Your task to perform on an android device: open sync settings in chrome Image 0: 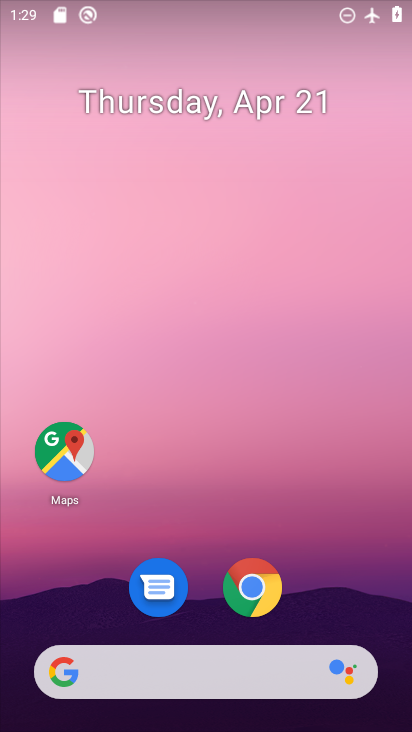
Step 0: click (258, 592)
Your task to perform on an android device: open sync settings in chrome Image 1: 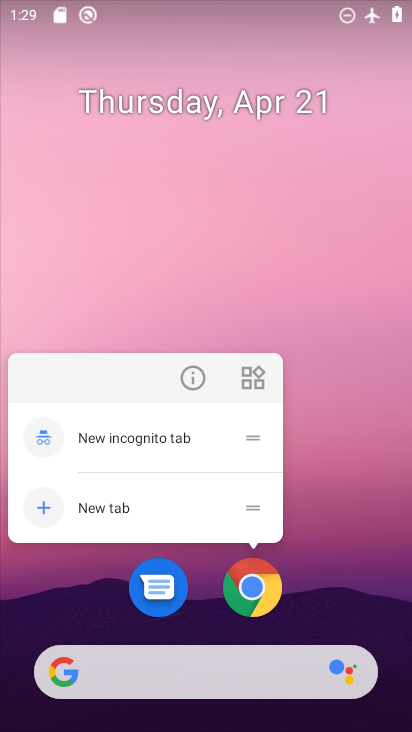
Step 1: click (258, 592)
Your task to perform on an android device: open sync settings in chrome Image 2: 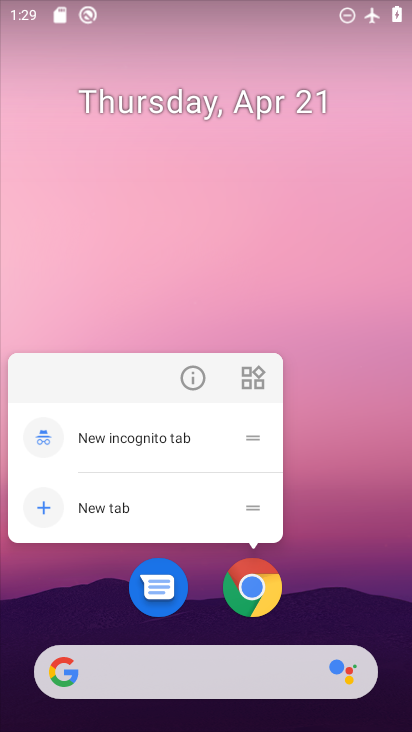
Step 2: click (259, 576)
Your task to perform on an android device: open sync settings in chrome Image 3: 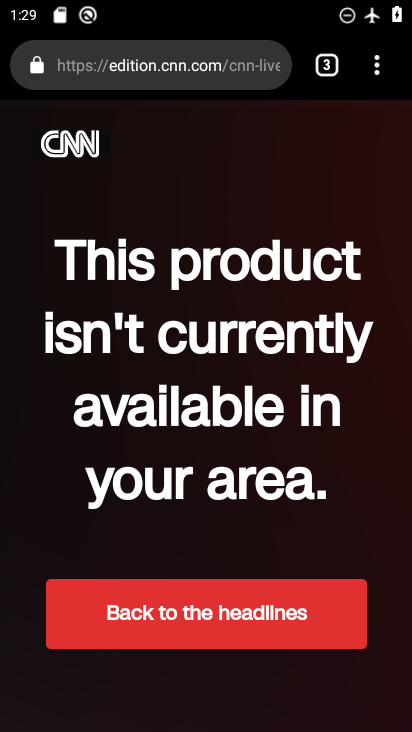
Step 3: click (379, 68)
Your task to perform on an android device: open sync settings in chrome Image 4: 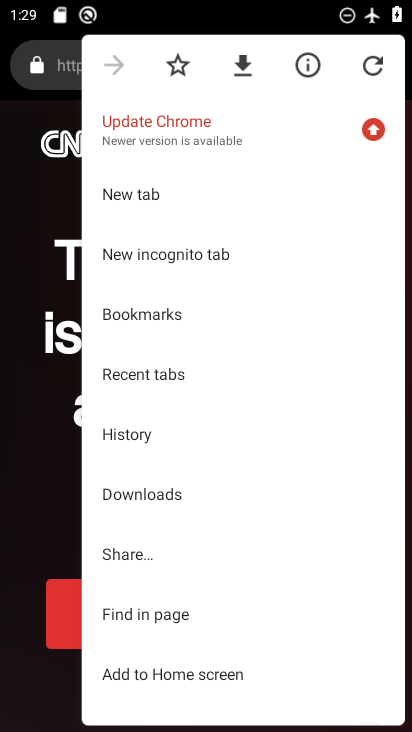
Step 4: drag from (247, 616) to (231, 387)
Your task to perform on an android device: open sync settings in chrome Image 5: 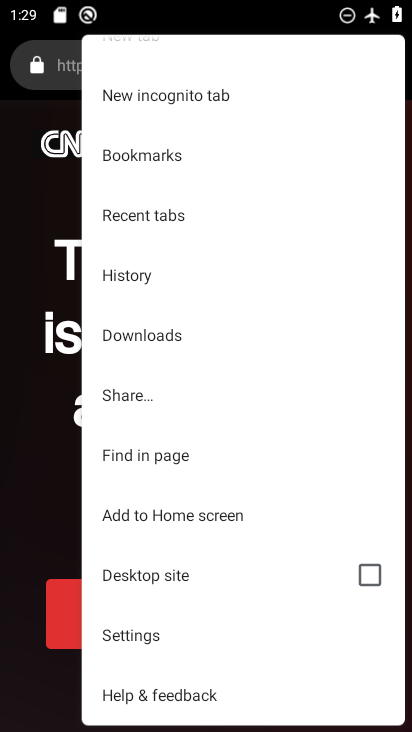
Step 5: click (141, 628)
Your task to perform on an android device: open sync settings in chrome Image 6: 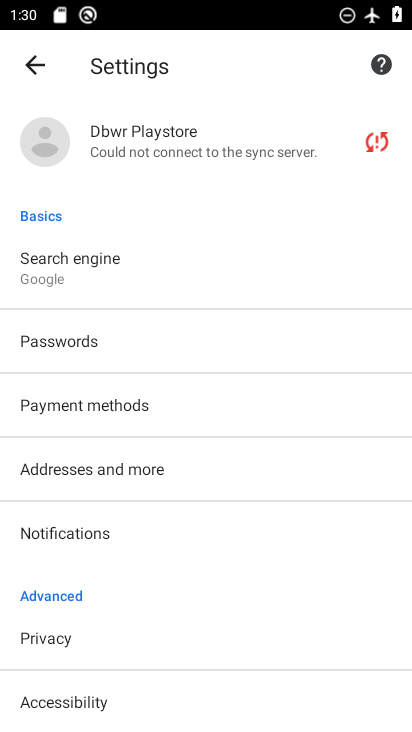
Step 6: drag from (234, 573) to (203, 91)
Your task to perform on an android device: open sync settings in chrome Image 7: 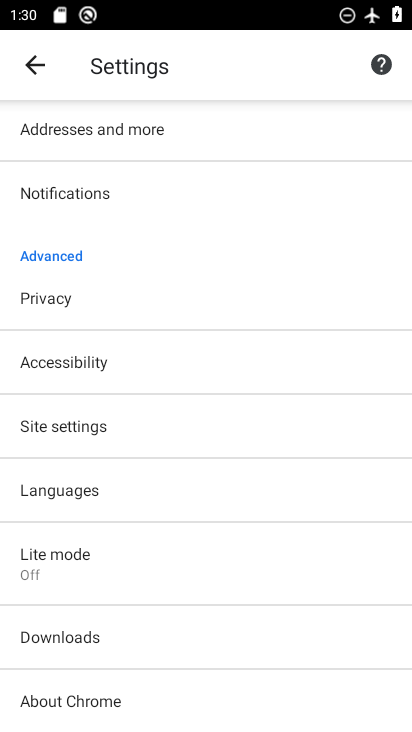
Step 7: drag from (225, 191) to (283, 699)
Your task to perform on an android device: open sync settings in chrome Image 8: 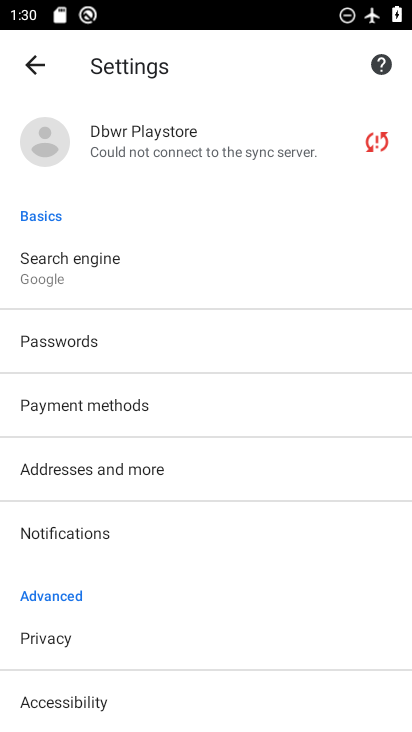
Step 8: click (118, 140)
Your task to perform on an android device: open sync settings in chrome Image 9: 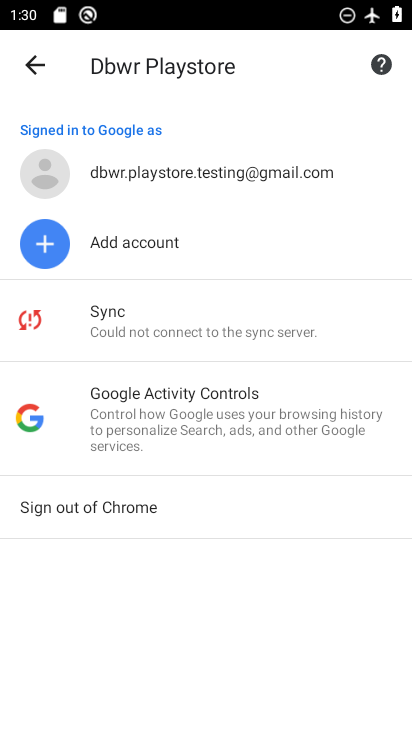
Step 9: click (93, 312)
Your task to perform on an android device: open sync settings in chrome Image 10: 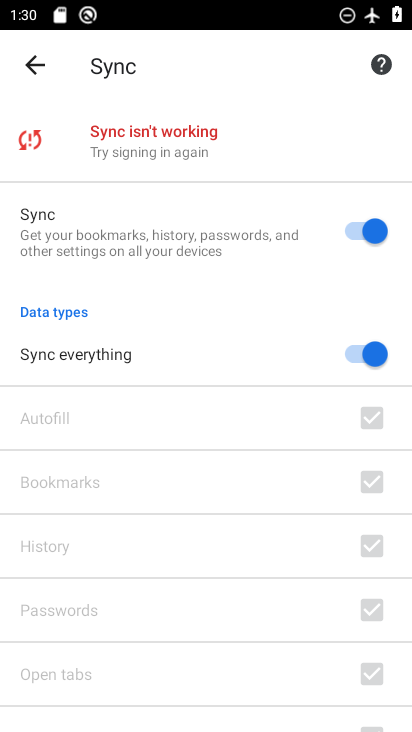
Step 10: task complete